Your task to perform on an android device: Open battery settings Image 0: 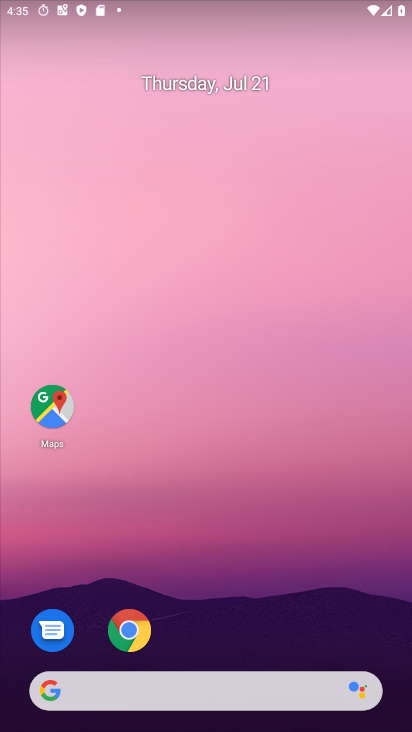
Step 0: drag from (198, 689) to (410, 28)
Your task to perform on an android device: Open battery settings Image 1: 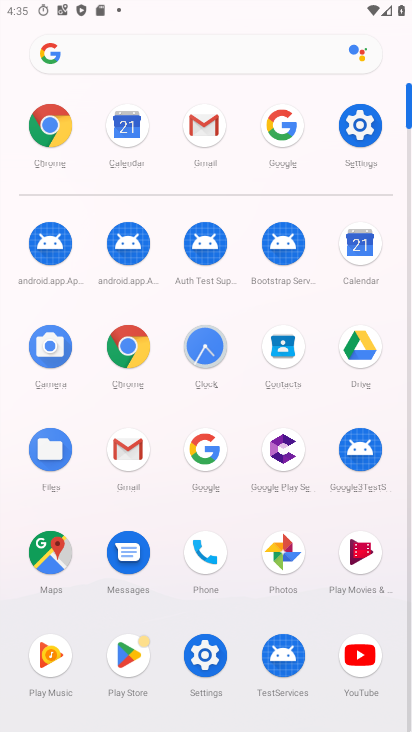
Step 1: click (361, 125)
Your task to perform on an android device: Open battery settings Image 2: 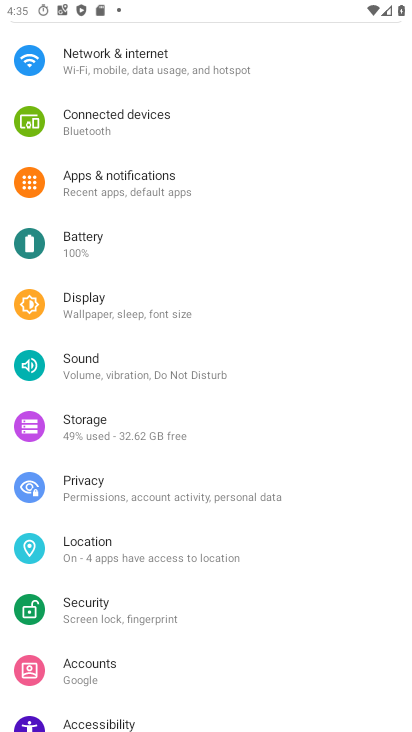
Step 2: click (103, 244)
Your task to perform on an android device: Open battery settings Image 3: 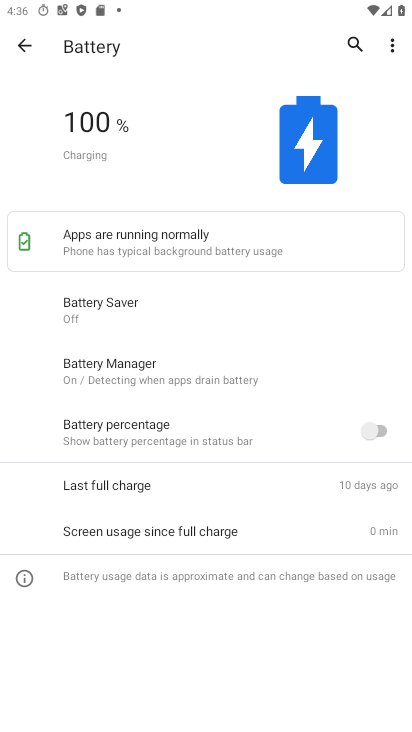
Step 3: task complete